Your task to perform on an android device: Open wifi settings Image 0: 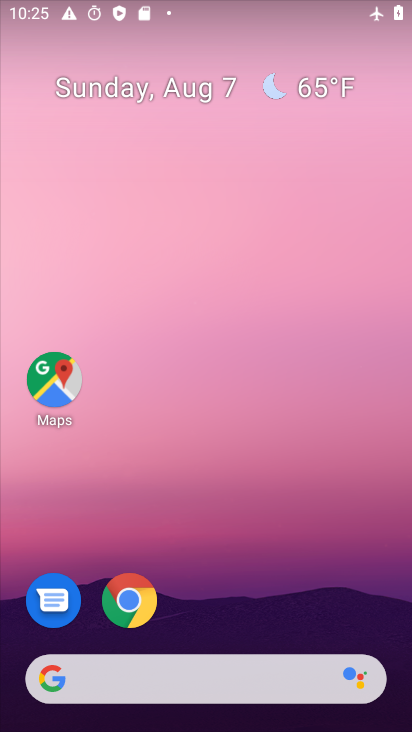
Step 0: drag from (275, 524) to (338, 20)
Your task to perform on an android device: Open wifi settings Image 1: 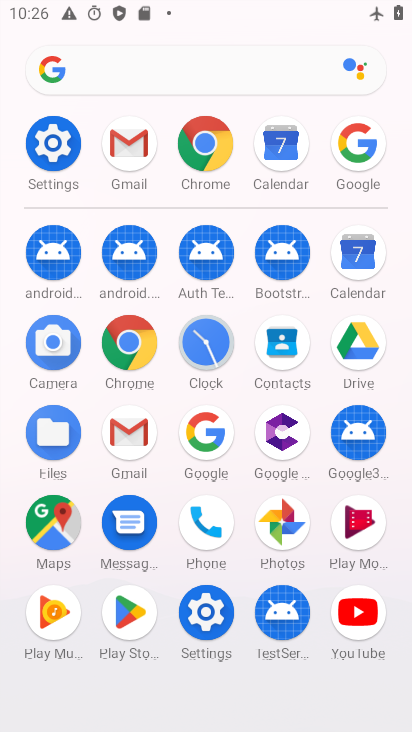
Step 1: drag from (209, 452) to (216, 75)
Your task to perform on an android device: Open wifi settings Image 2: 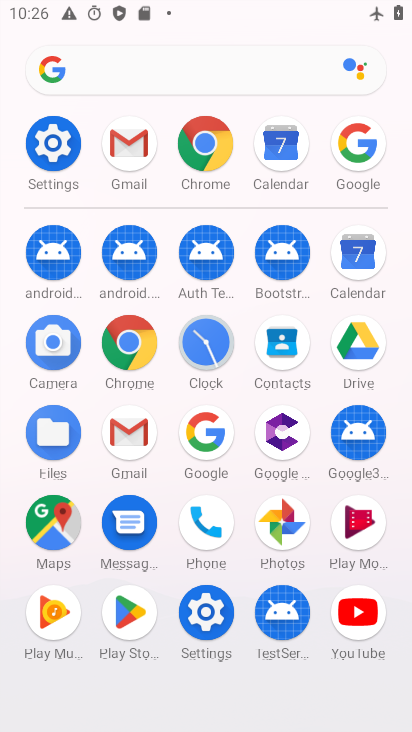
Step 2: click (209, 611)
Your task to perform on an android device: Open wifi settings Image 3: 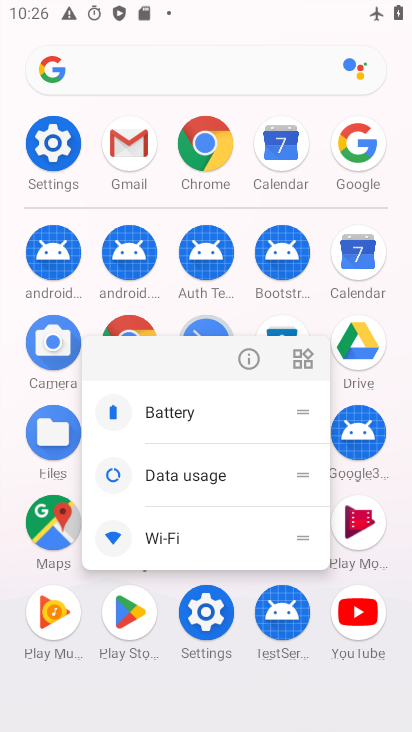
Step 3: click (25, 159)
Your task to perform on an android device: Open wifi settings Image 4: 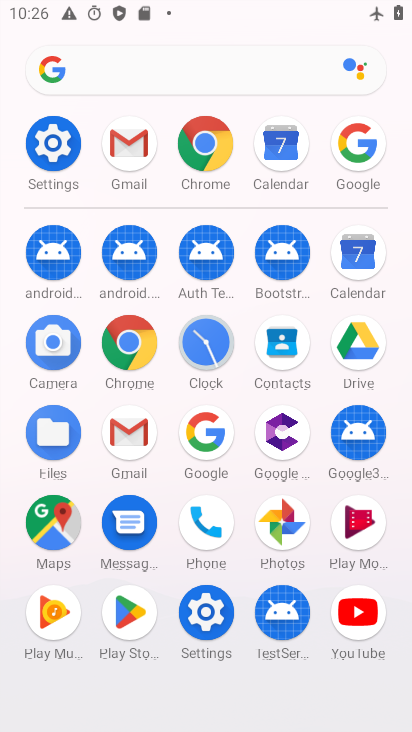
Step 4: click (54, 163)
Your task to perform on an android device: Open wifi settings Image 5: 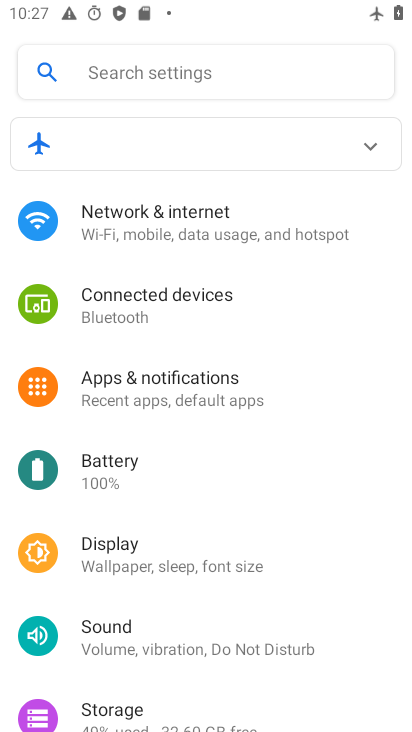
Step 5: click (141, 237)
Your task to perform on an android device: Open wifi settings Image 6: 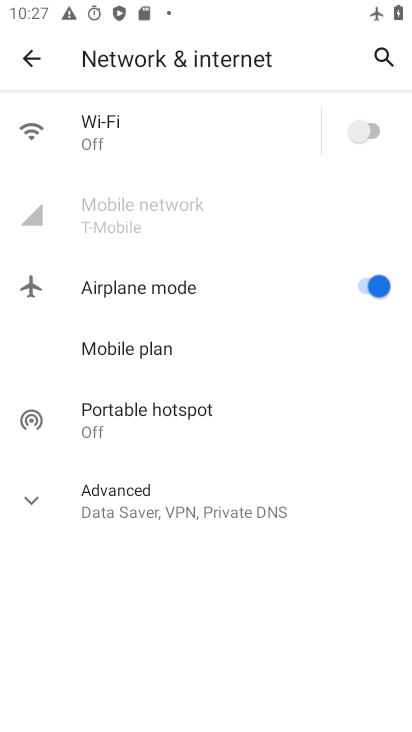
Step 6: click (152, 135)
Your task to perform on an android device: Open wifi settings Image 7: 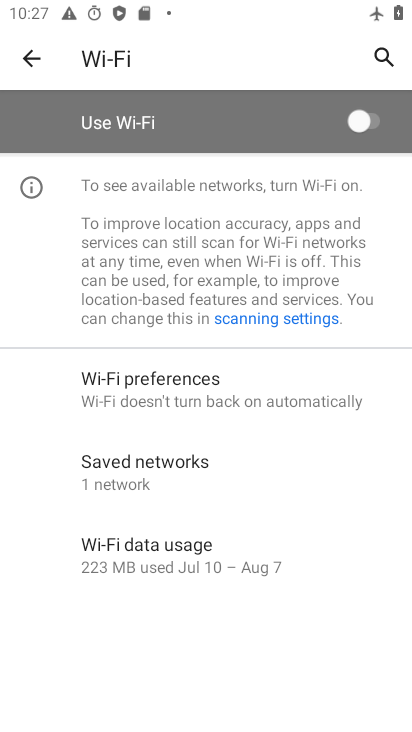
Step 7: task complete